Your task to perform on an android device: toggle show notifications on the lock screen Image 0: 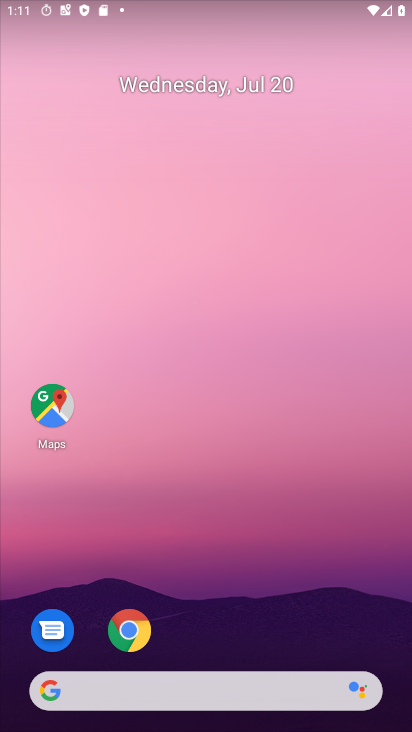
Step 0: drag from (333, 540) to (278, 214)
Your task to perform on an android device: toggle show notifications on the lock screen Image 1: 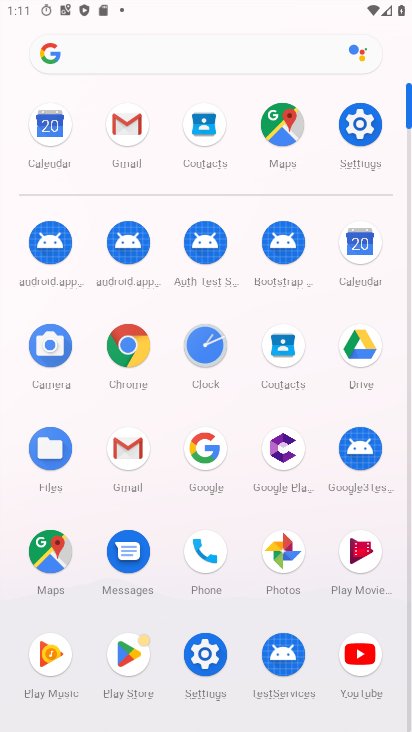
Step 1: click (357, 124)
Your task to perform on an android device: toggle show notifications on the lock screen Image 2: 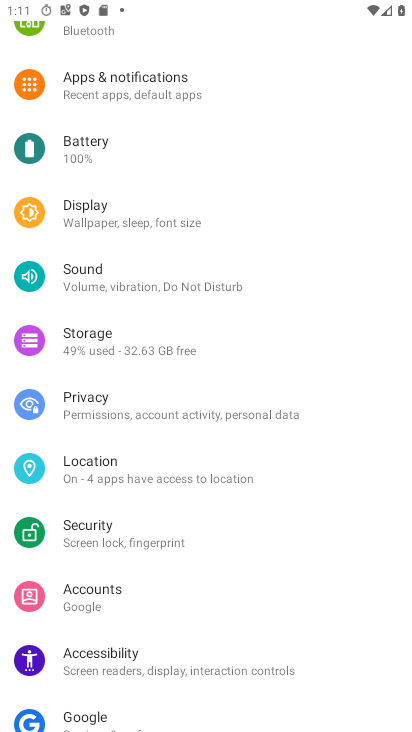
Step 2: click (155, 85)
Your task to perform on an android device: toggle show notifications on the lock screen Image 3: 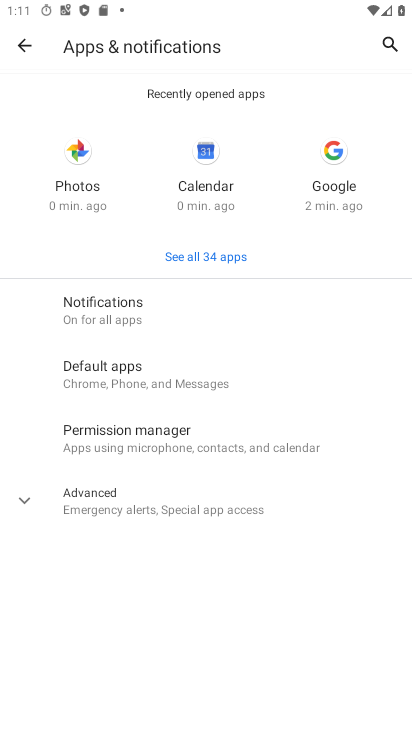
Step 3: click (115, 306)
Your task to perform on an android device: toggle show notifications on the lock screen Image 4: 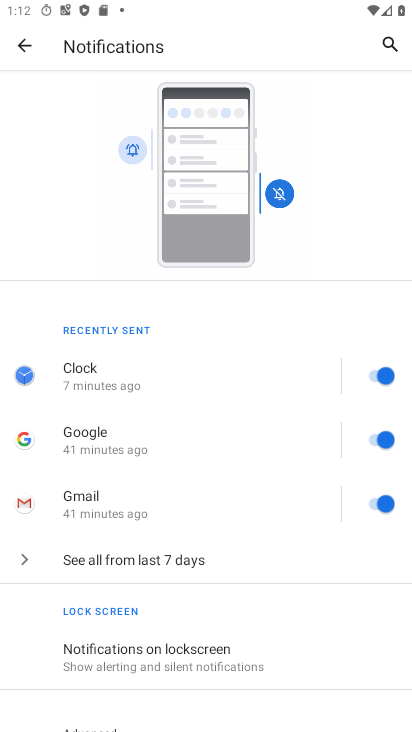
Step 4: click (159, 654)
Your task to perform on an android device: toggle show notifications on the lock screen Image 5: 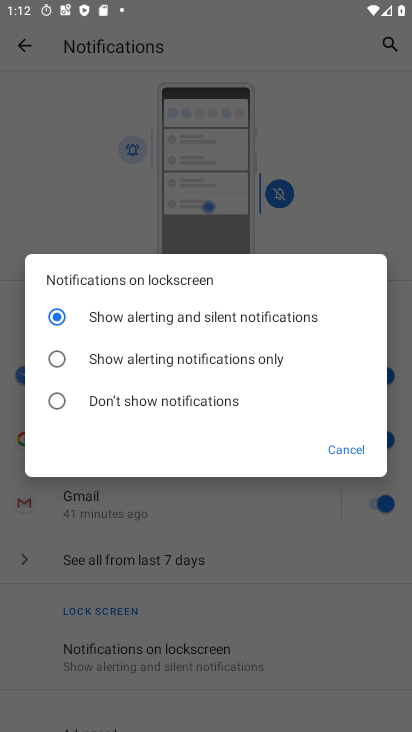
Step 5: click (169, 367)
Your task to perform on an android device: toggle show notifications on the lock screen Image 6: 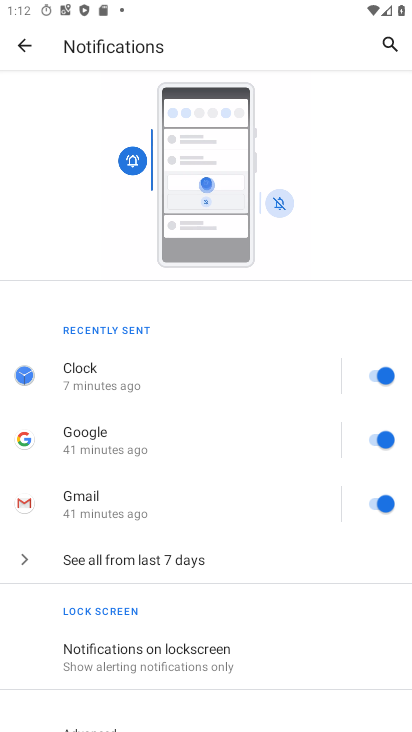
Step 6: task complete